Your task to perform on an android device: turn off airplane mode Image 0: 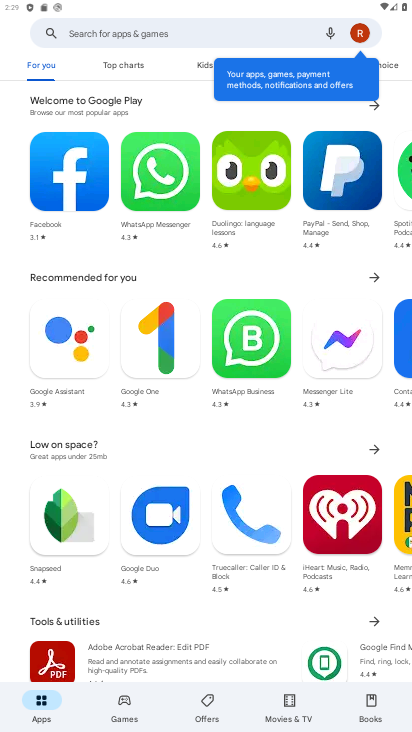
Step 0: press home button
Your task to perform on an android device: turn off airplane mode Image 1: 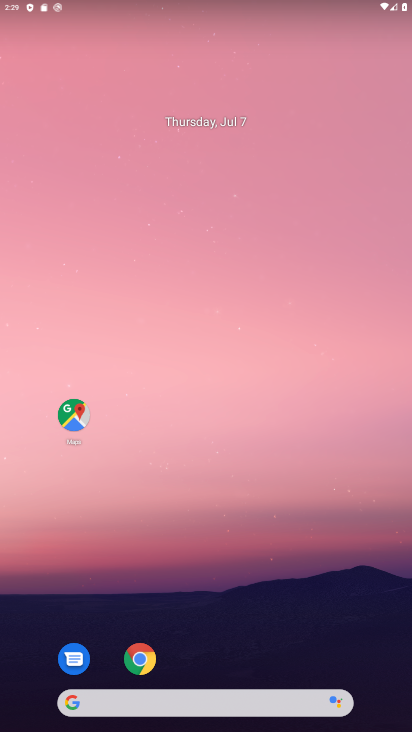
Step 1: task complete